Your task to perform on an android device: Open Chrome and go to the settings page Image 0: 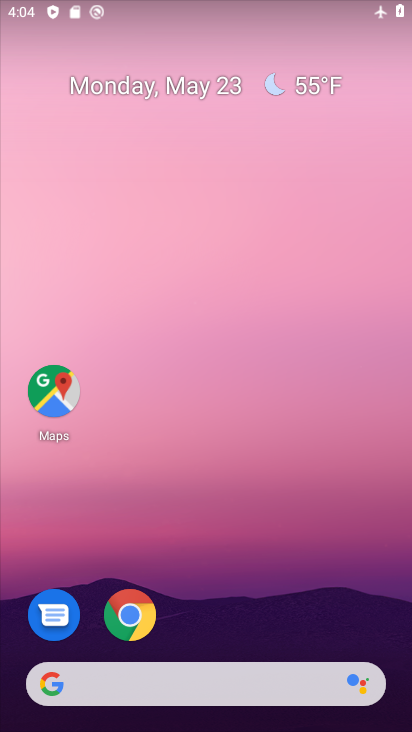
Step 0: drag from (379, 633) to (384, 323)
Your task to perform on an android device: Open Chrome and go to the settings page Image 1: 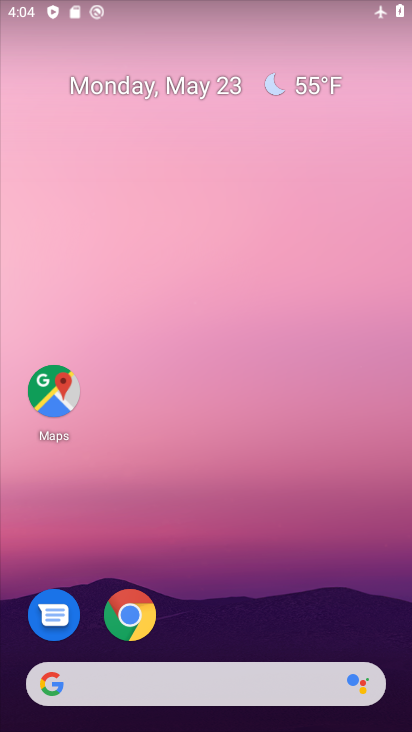
Step 1: drag from (388, 626) to (382, 269)
Your task to perform on an android device: Open Chrome and go to the settings page Image 2: 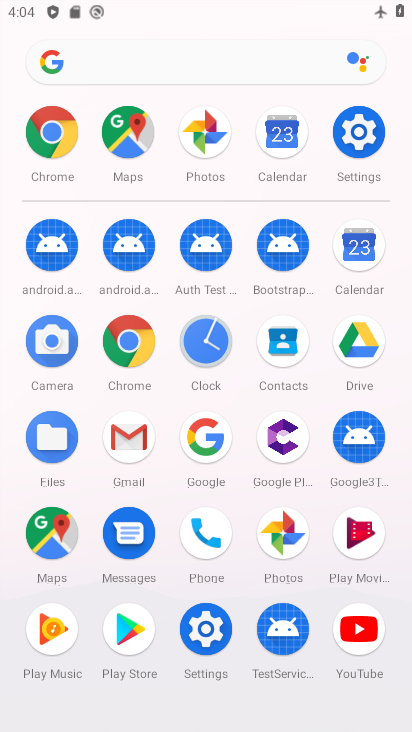
Step 2: click (133, 352)
Your task to perform on an android device: Open Chrome and go to the settings page Image 3: 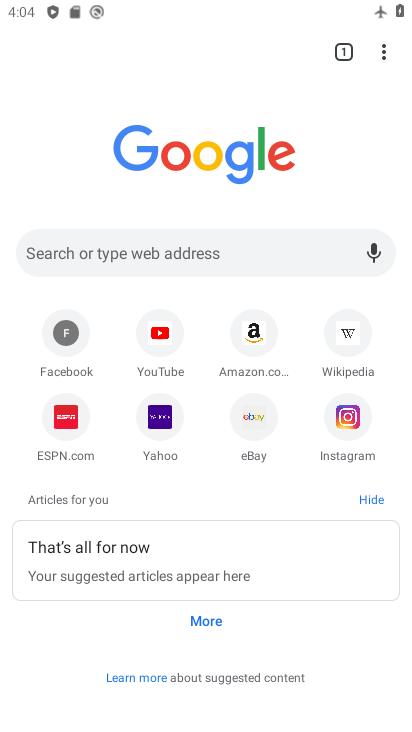
Step 3: click (383, 57)
Your task to perform on an android device: Open Chrome and go to the settings page Image 4: 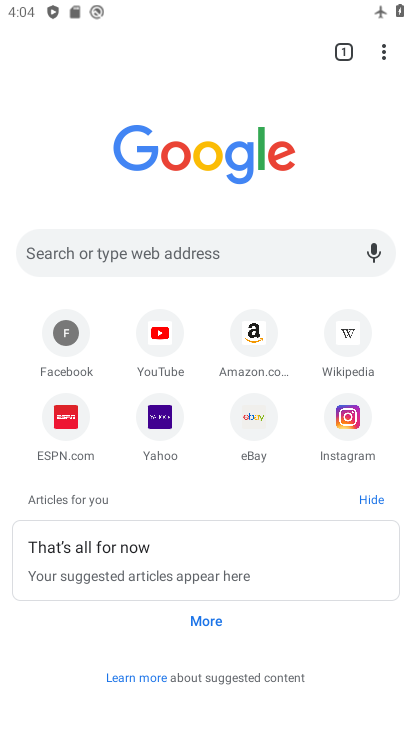
Step 4: click (383, 57)
Your task to perform on an android device: Open Chrome and go to the settings page Image 5: 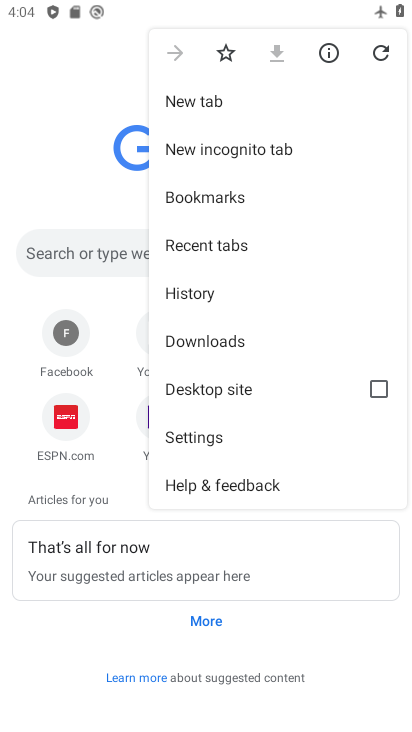
Step 5: click (223, 446)
Your task to perform on an android device: Open Chrome and go to the settings page Image 6: 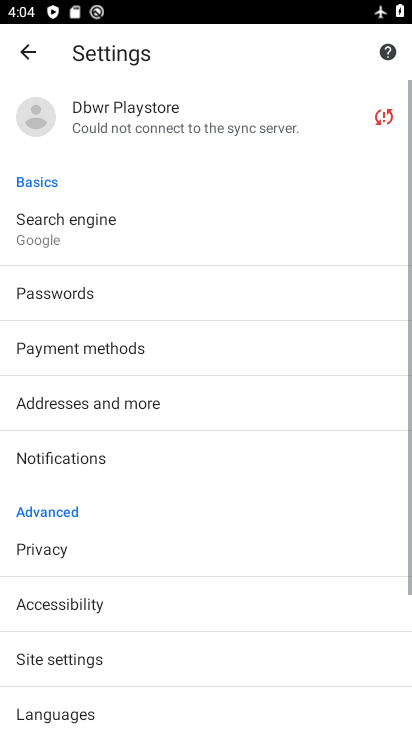
Step 6: task complete